Your task to perform on an android device: empty trash in the gmail app Image 0: 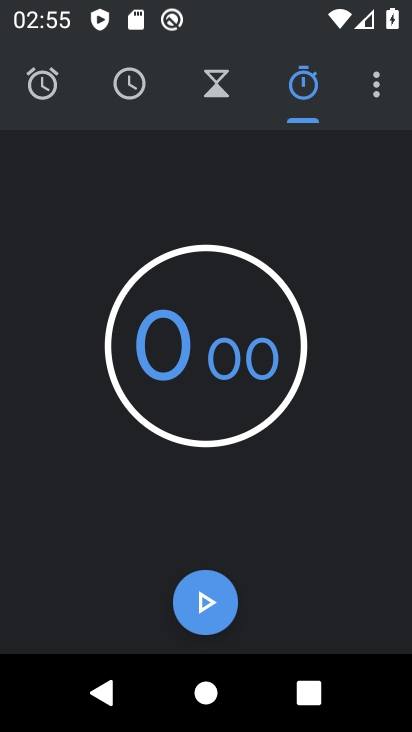
Step 0: press home button
Your task to perform on an android device: empty trash in the gmail app Image 1: 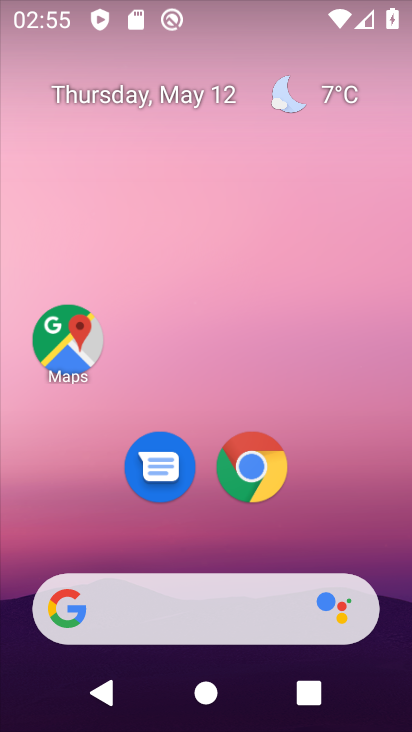
Step 1: drag from (358, 512) to (348, 92)
Your task to perform on an android device: empty trash in the gmail app Image 2: 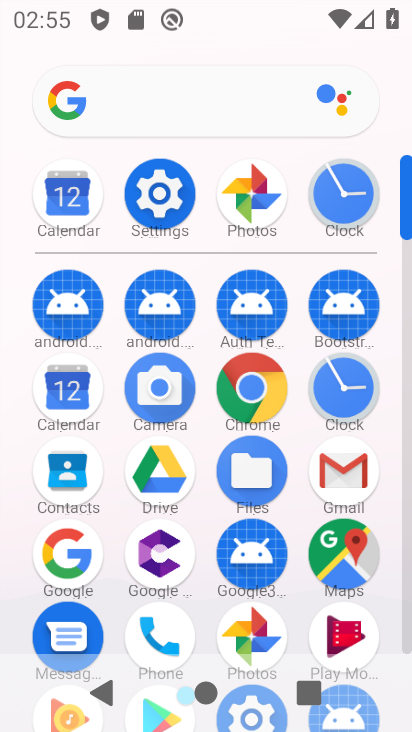
Step 2: click (337, 480)
Your task to perform on an android device: empty trash in the gmail app Image 3: 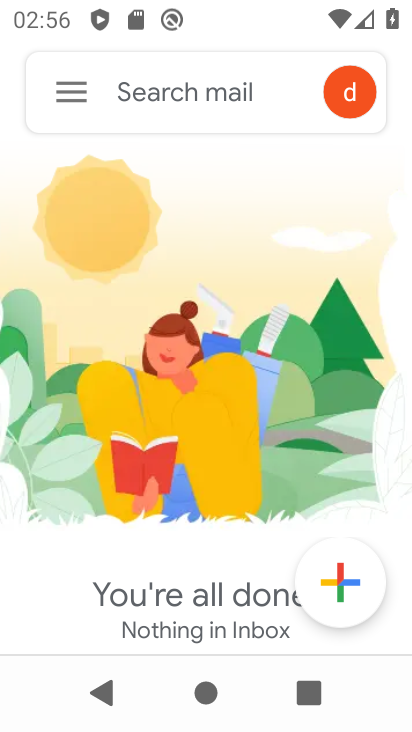
Step 3: click (70, 99)
Your task to perform on an android device: empty trash in the gmail app Image 4: 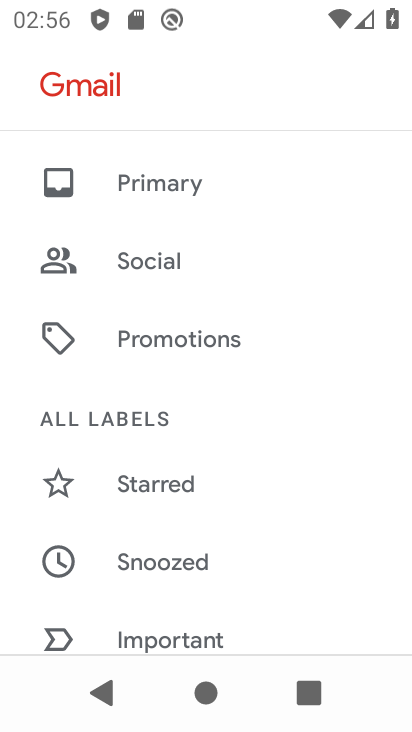
Step 4: drag from (193, 518) to (176, 147)
Your task to perform on an android device: empty trash in the gmail app Image 5: 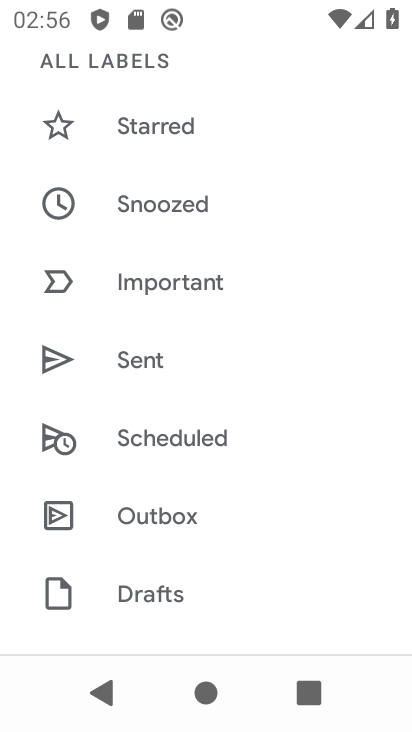
Step 5: drag from (204, 569) to (183, 135)
Your task to perform on an android device: empty trash in the gmail app Image 6: 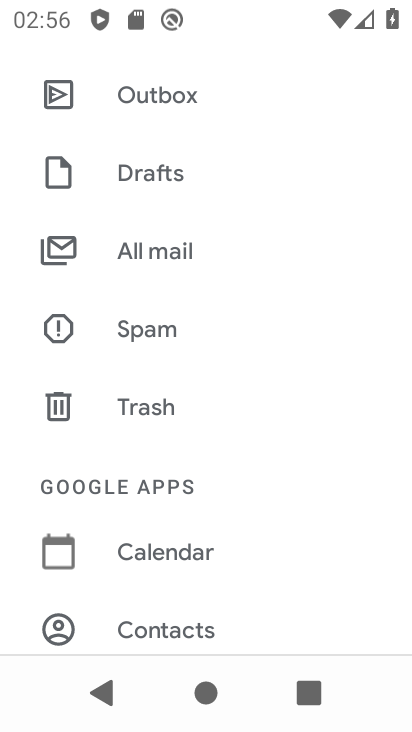
Step 6: click (197, 397)
Your task to perform on an android device: empty trash in the gmail app Image 7: 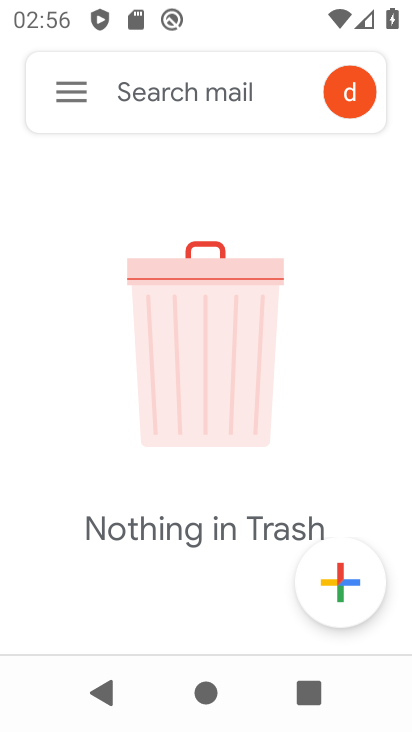
Step 7: task complete